Your task to perform on an android device: Search for hotels in Las Vegas Image 0: 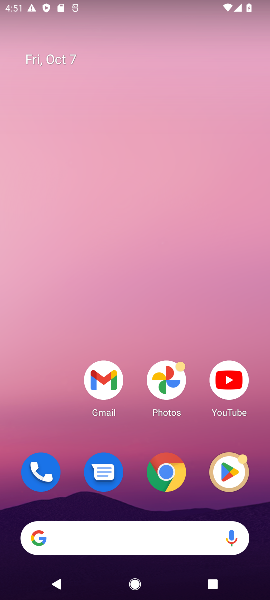
Step 0: click (167, 474)
Your task to perform on an android device: Search for hotels in Las Vegas Image 1: 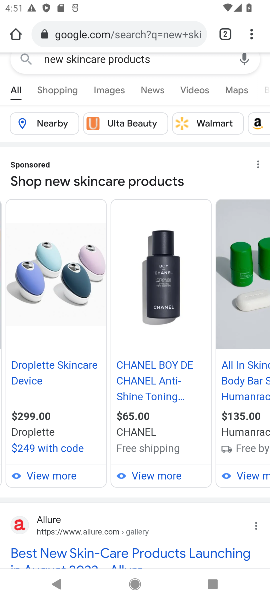
Step 1: click (194, 26)
Your task to perform on an android device: Search for hotels in Las Vegas Image 2: 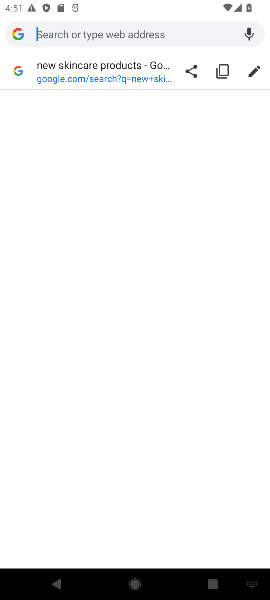
Step 2: type "hotels in Las Vegas"
Your task to perform on an android device: Search for hotels in Las Vegas Image 3: 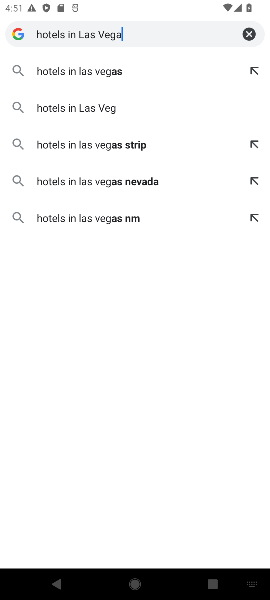
Step 3: press enter
Your task to perform on an android device: Search for hotels in Las Vegas Image 4: 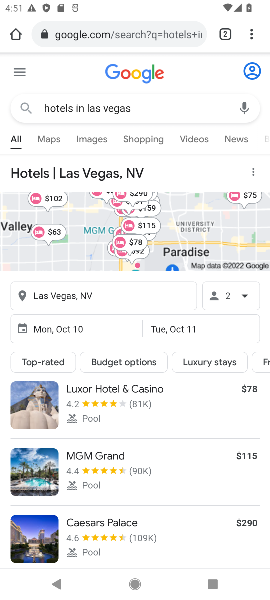
Step 4: drag from (135, 427) to (134, 206)
Your task to perform on an android device: Search for hotels in Las Vegas Image 5: 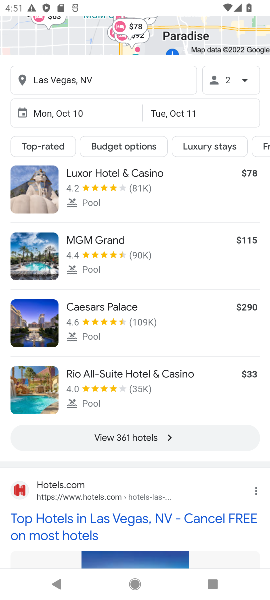
Step 5: click (153, 437)
Your task to perform on an android device: Search for hotels in Las Vegas Image 6: 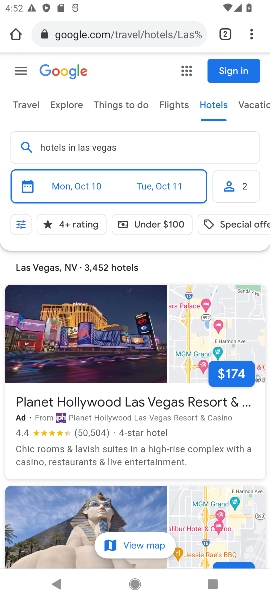
Step 6: task complete